Your task to perform on an android device: When is my next meeting? Image 0: 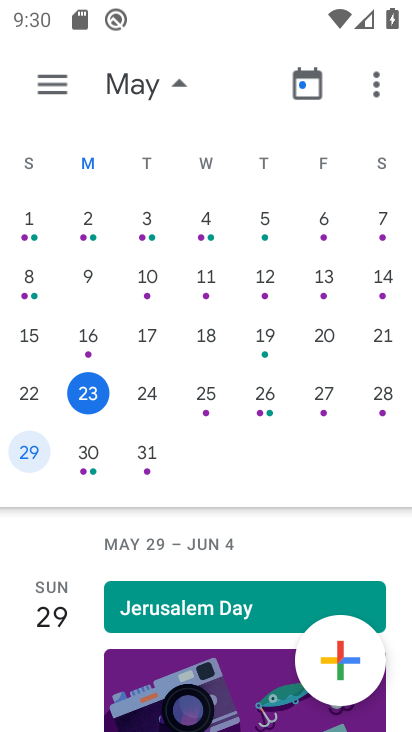
Step 0: press home button
Your task to perform on an android device: When is my next meeting? Image 1: 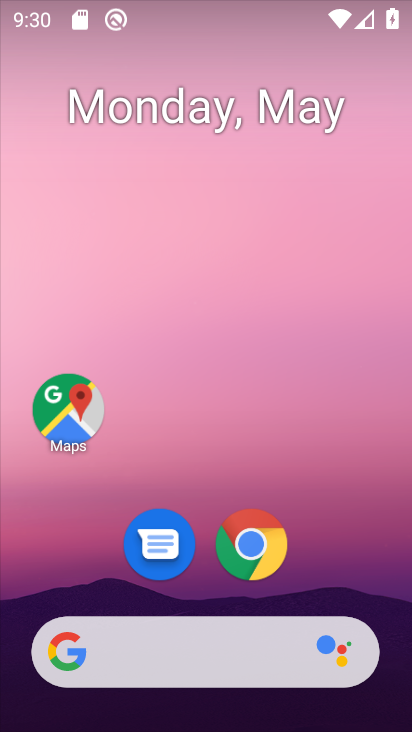
Step 1: drag from (400, 579) to (307, 188)
Your task to perform on an android device: When is my next meeting? Image 2: 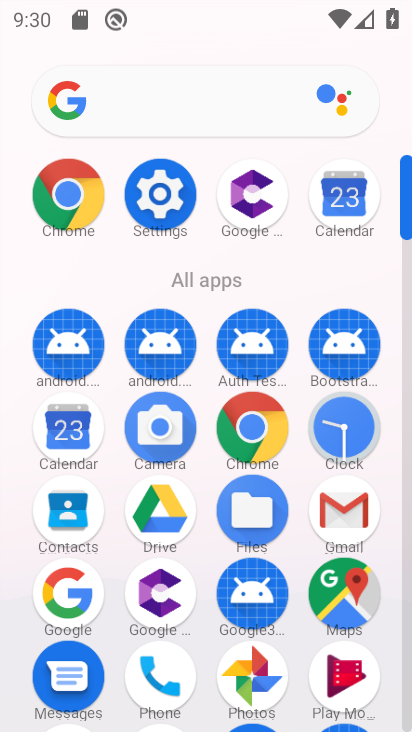
Step 2: click (359, 203)
Your task to perform on an android device: When is my next meeting? Image 3: 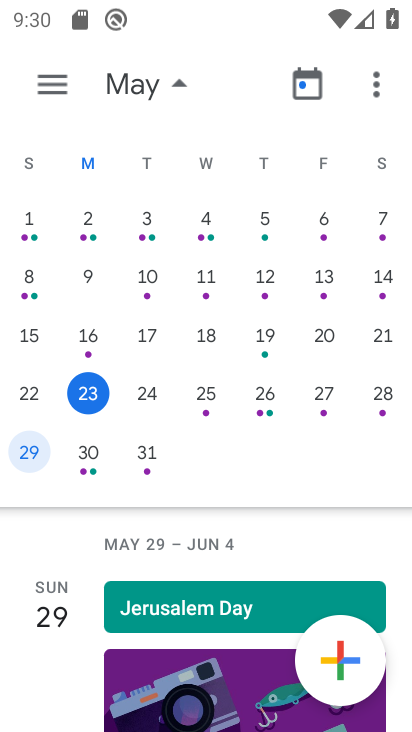
Step 3: drag from (133, 579) to (165, 242)
Your task to perform on an android device: When is my next meeting? Image 4: 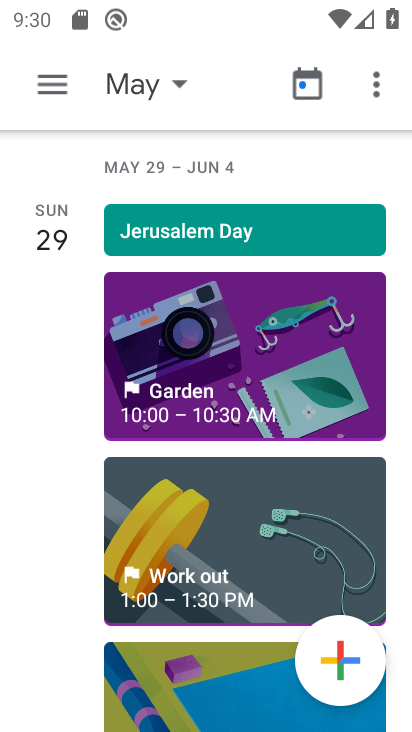
Step 4: drag from (66, 192) to (70, 617)
Your task to perform on an android device: When is my next meeting? Image 5: 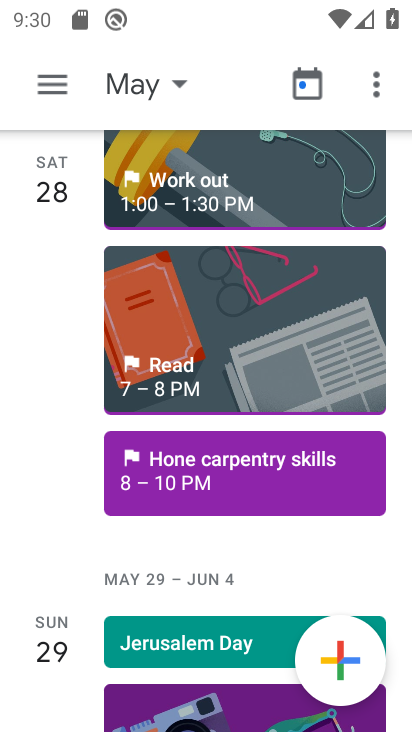
Step 5: drag from (87, 203) to (92, 657)
Your task to perform on an android device: When is my next meeting? Image 6: 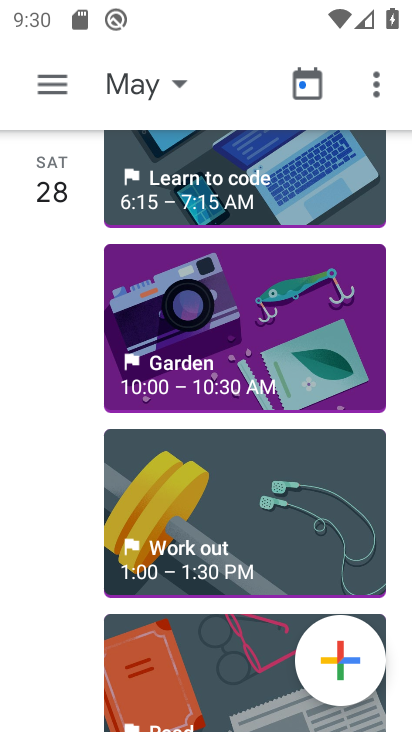
Step 6: drag from (65, 209) to (94, 678)
Your task to perform on an android device: When is my next meeting? Image 7: 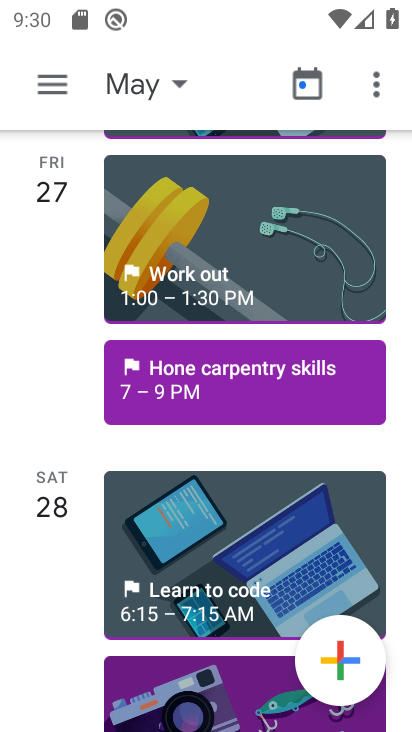
Step 7: drag from (53, 250) to (80, 711)
Your task to perform on an android device: When is my next meeting? Image 8: 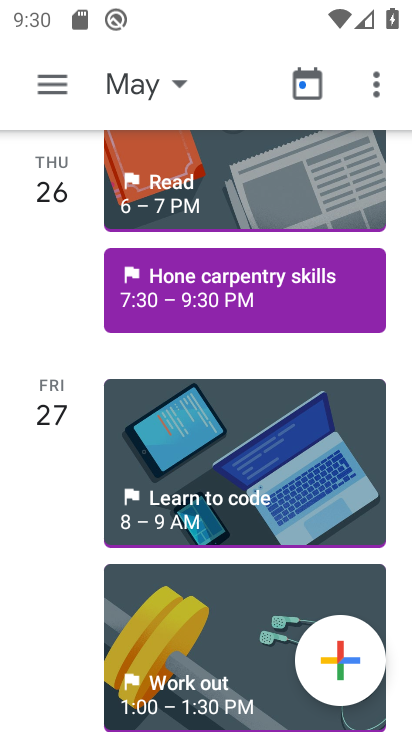
Step 8: drag from (46, 272) to (57, 617)
Your task to perform on an android device: When is my next meeting? Image 9: 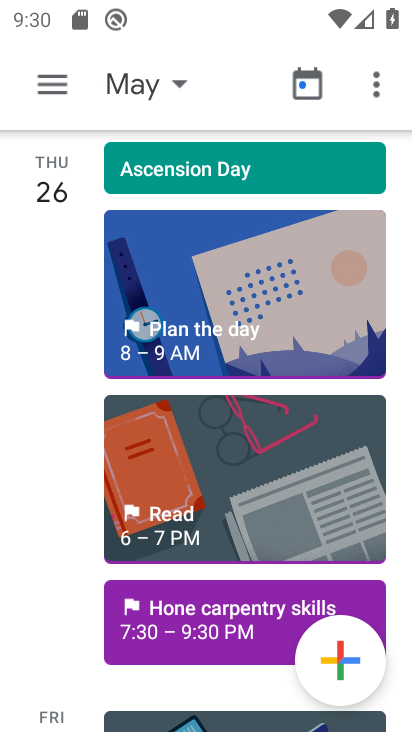
Step 9: drag from (87, 580) to (103, 138)
Your task to perform on an android device: When is my next meeting? Image 10: 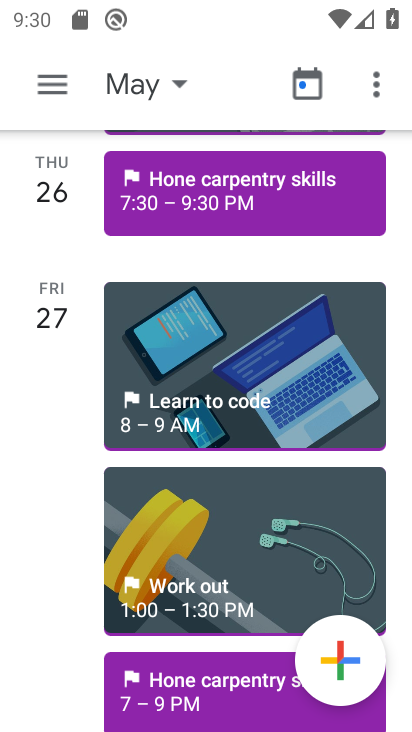
Step 10: drag from (48, 553) to (123, 188)
Your task to perform on an android device: When is my next meeting? Image 11: 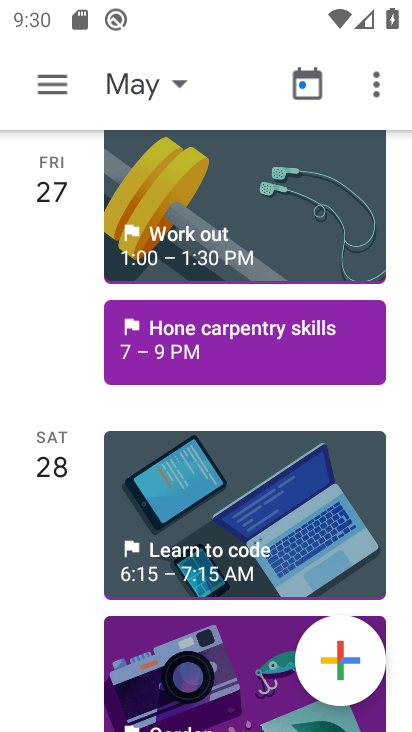
Step 11: drag from (114, 728) to (146, 319)
Your task to perform on an android device: When is my next meeting? Image 12: 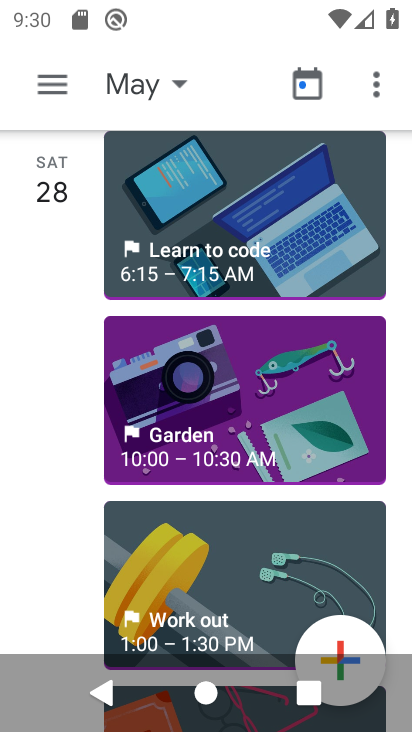
Step 12: drag from (74, 637) to (125, 186)
Your task to perform on an android device: When is my next meeting? Image 13: 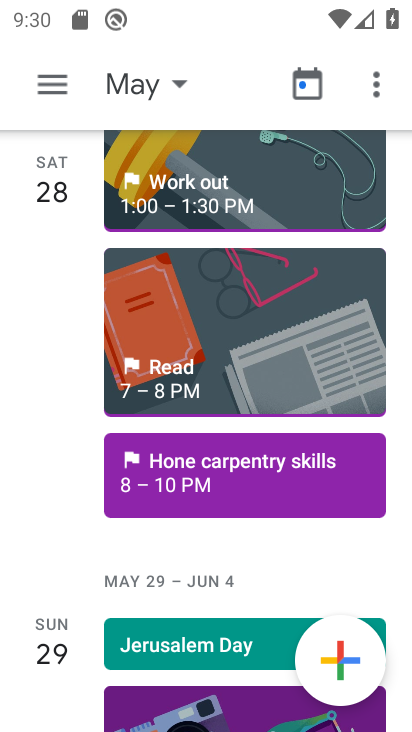
Step 13: drag from (82, 603) to (115, 180)
Your task to perform on an android device: When is my next meeting? Image 14: 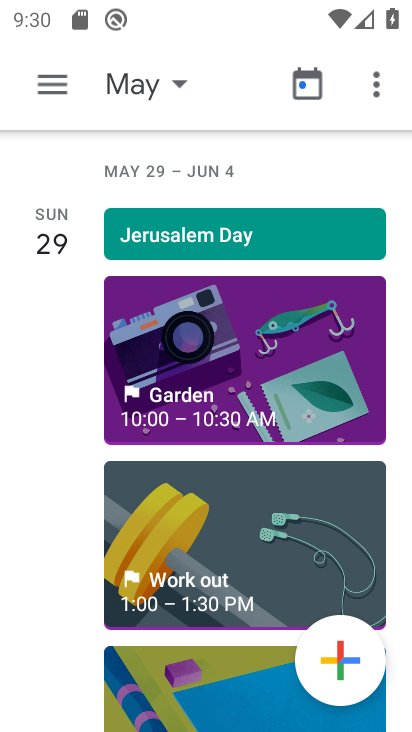
Step 14: drag from (78, 681) to (136, 210)
Your task to perform on an android device: When is my next meeting? Image 15: 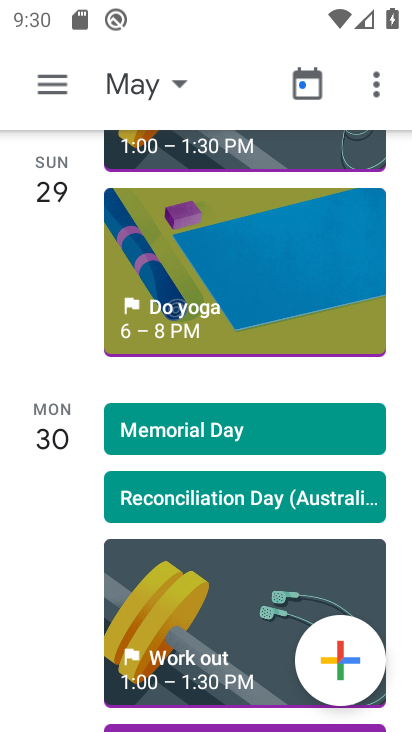
Step 15: drag from (51, 669) to (109, 232)
Your task to perform on an android device: When is my next meeting? Image 16: 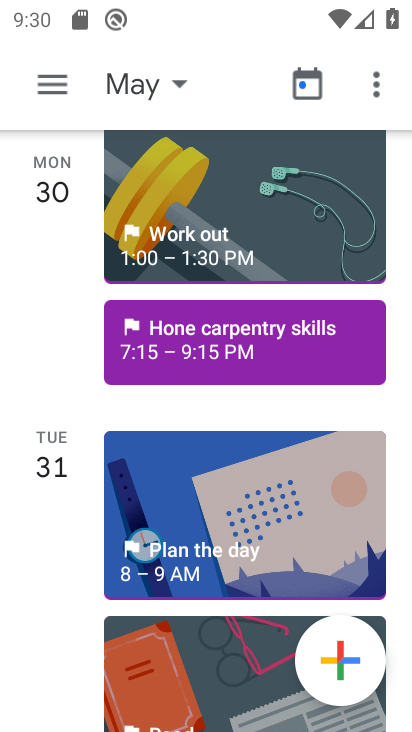
Step 16: drag from (67, 662) to (122, 216)
Your task to perform on an android device: When is my next meeting? Image 17: 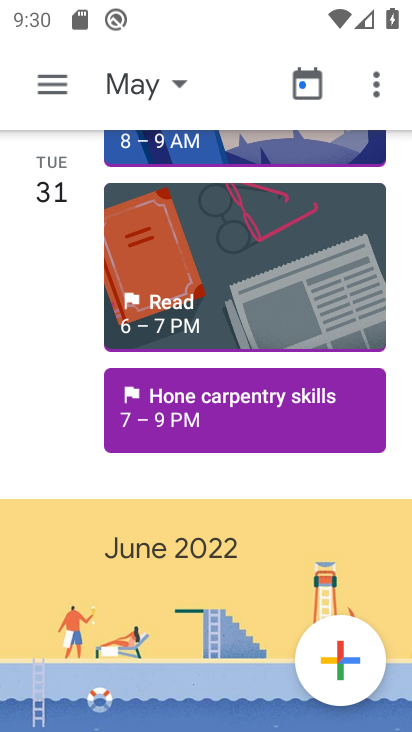
Step 17: drag from (66, 699) to (139, 161)
Your task to perform on an android device: When is my next meeting? Image 18: 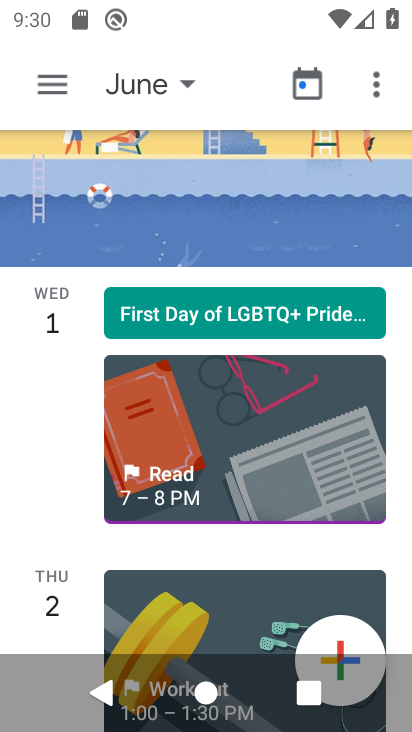
Step 18: drag from (103, 588) to (136, 161)
Your task to perform on an android device: When is my next meeting? Image 19: 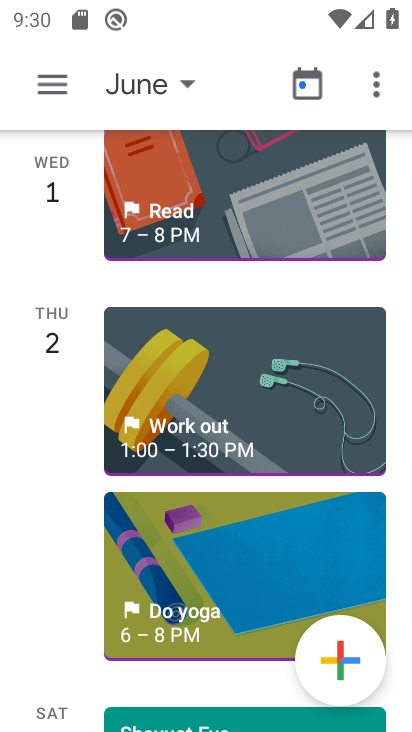
Step 19: drag from (66, 547) to (149, 82)
Your task to perform on an android device: When is my next meeting? Image 20: 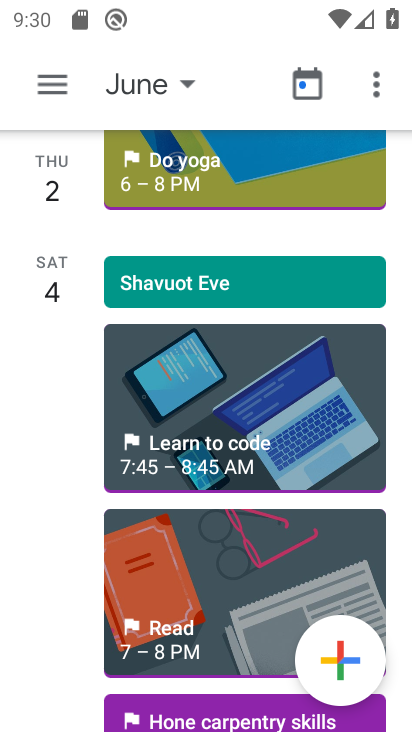
Step 20: drag from (64, 581) to (68, 182)
Your task to perform on an android device: When is my next meeting? Image 21: 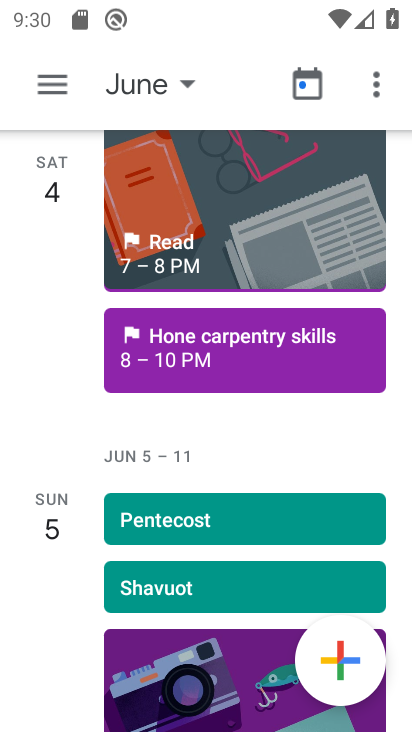
Step 21: drag from (73, 594) to (88, 166)
Your task to perform on an android device: When is my next meeting? Image 22: 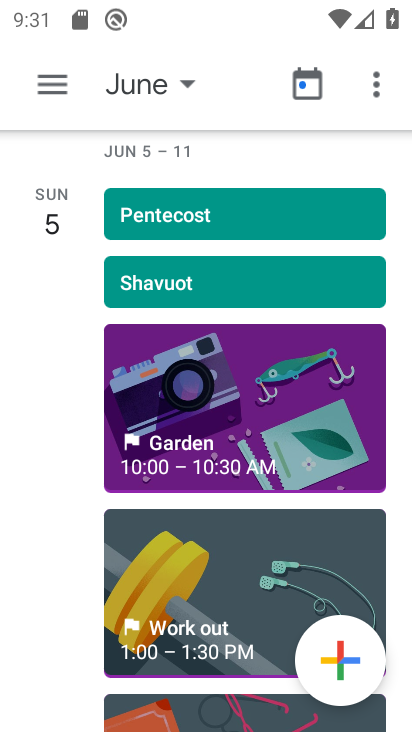
Step 22: drag from (76, 621) to (93, 214)
Your task to perform on an android device: When is my next meeting? Image 23: 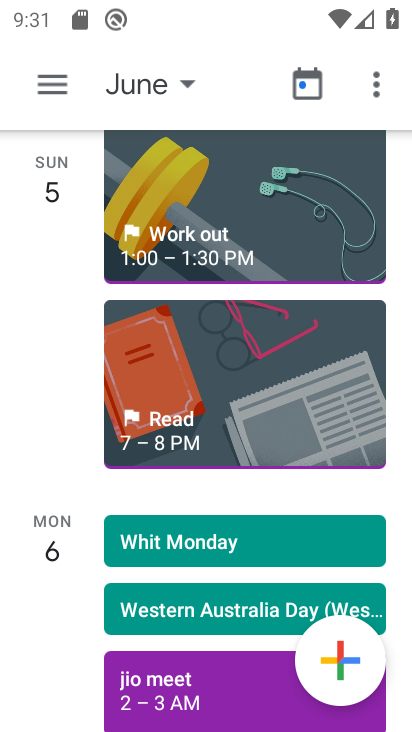
Step 23: drag from (68, 640) to (90, 285)
Your task to perform on an android device: When is my next meeting? Image 24: 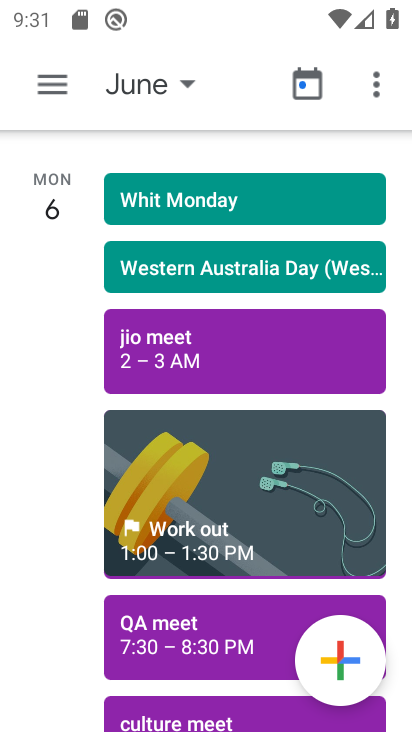
Step 24: click (198, 336)
Your task to perform on an android device: When is my next meeting? Image 25: 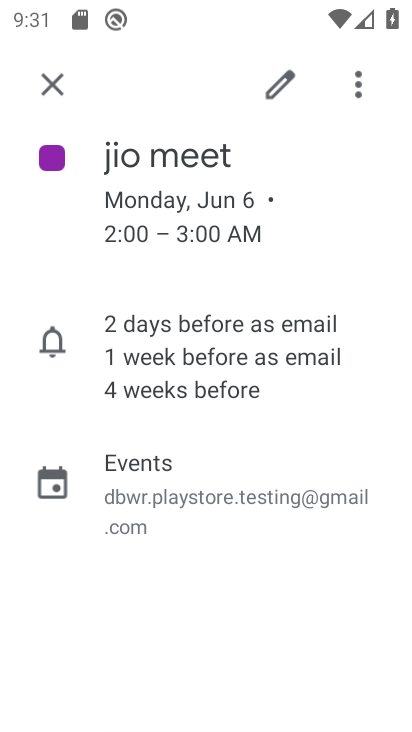
Step 25: task complete